Your task to perform on an android device: change the clock display to analog Image 0: 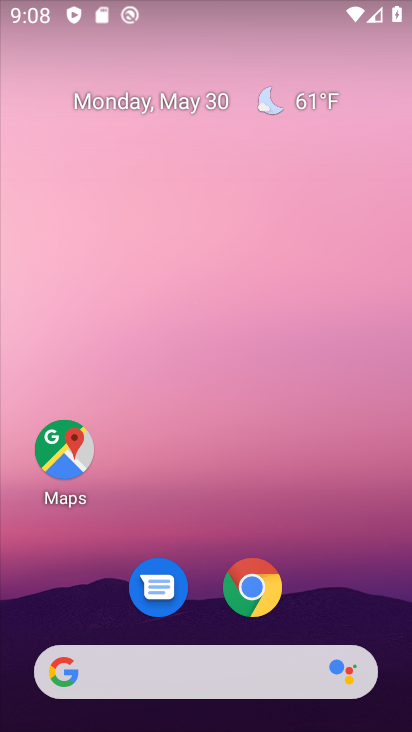
Step 0: drag from (208, 613) to (177, 30)
Your task to perform on an android device: change the clock display to analog Image 1: 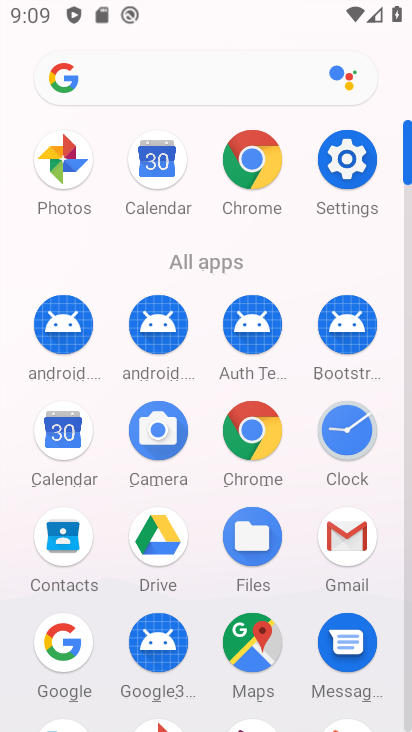
Step 1: click (353, 451)
Your task to perform on an android device: change the clock display to analog Image 2: 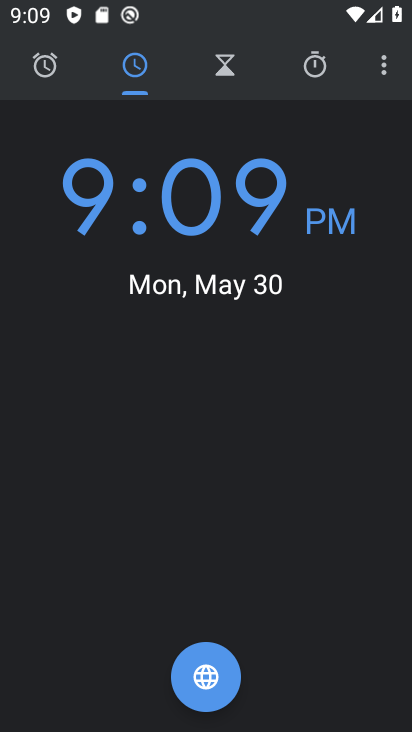
Step 2: click (381, 68)
Your task to perform on an android device: change the clock display to analog Image 3: 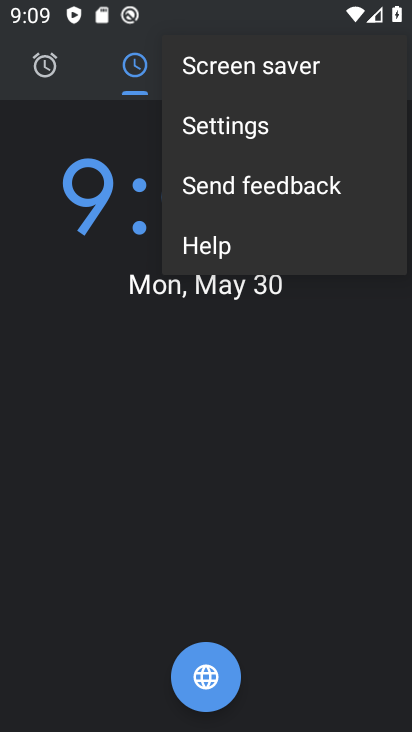
Step 3: click (244, 133)
Your task to perform on an android device: change the clock display to analog Image 4: 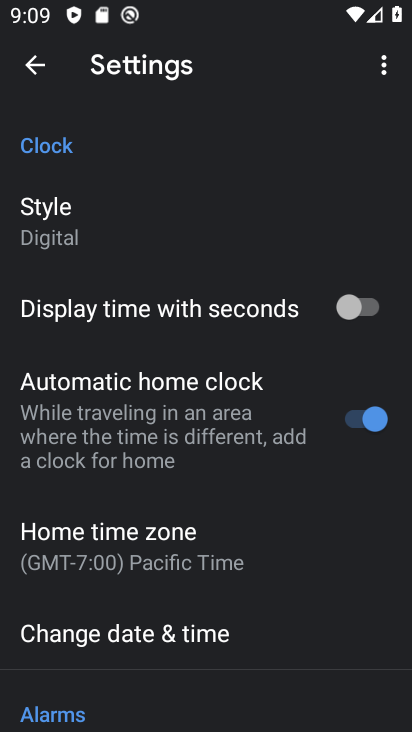
Step 4: click (60, 233)
Your task to perform on an android device: change the clock display to analog Image 5: 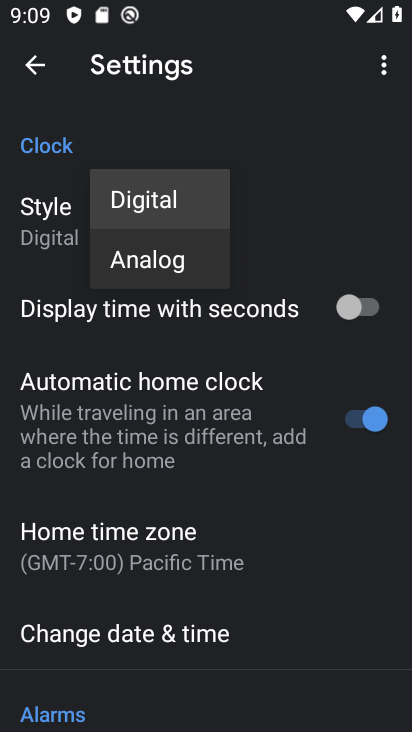
Step 5: click (165, 257)
Your task to perform on an android device: change the clock display to analog Image 6: 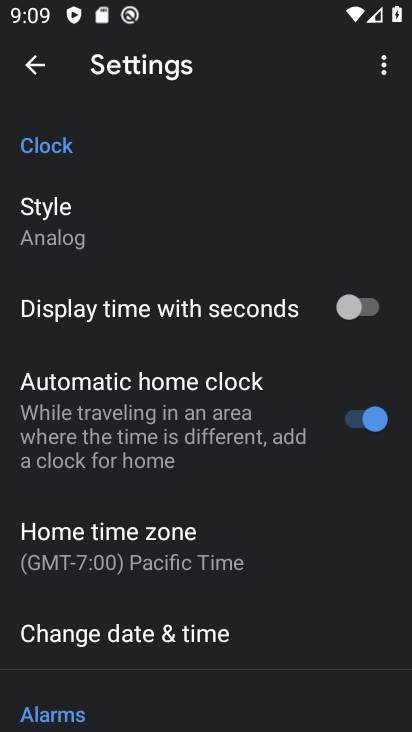
Step 6: task complete